Your task to perform on an android device: turn on javascript in the chrome app Image 0: 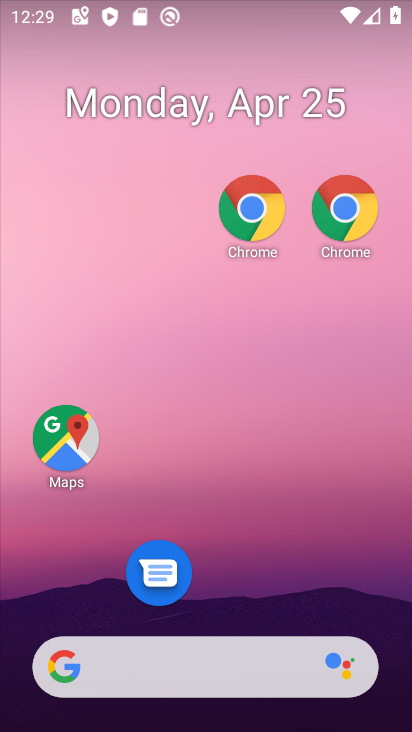
Step 0: drag from (205, 543) to (80, 34)
Your task to perform on an android device: turn on javascript in the chrome app Image 1: 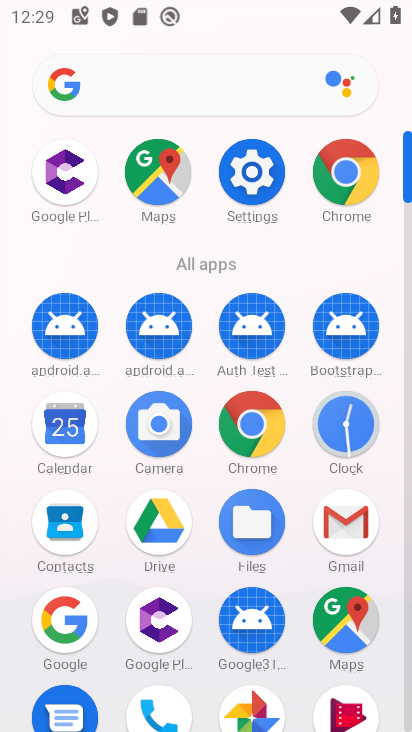
Step 1: click (337, 180)
Your task to perform on an android device: turn on javascript in the chrome app Image 2: 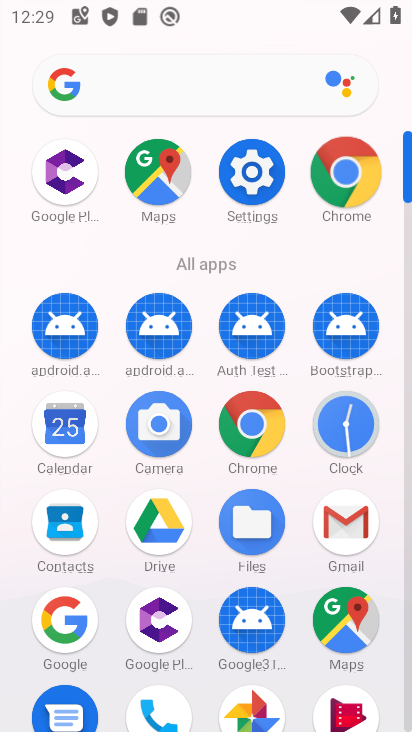
Step 2: click (344, 178)
Your task to perform on an android device: turn on javascript in the chrome app Image 3: 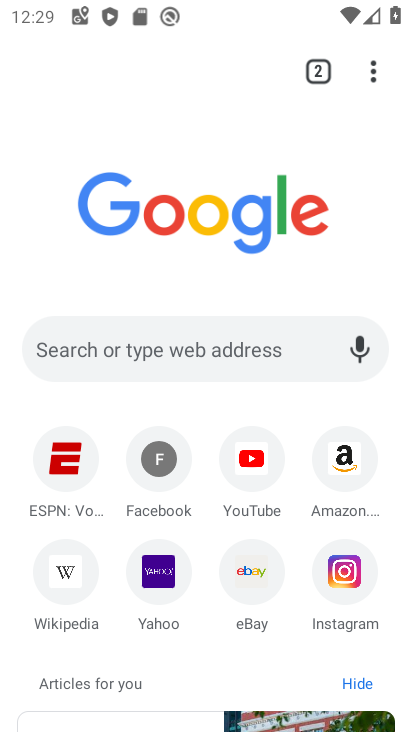
Step 3: drag from (374, 66) to (141, 606)
Your task to perform on an android device: turn on javascript in the chrome app Image 4: 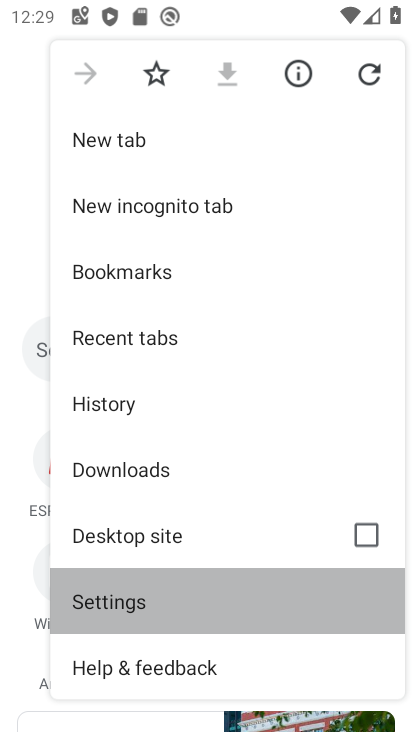
Step 4: click (140, 607)
Your task to perform on an android device: turn on javascript in the chrome app Image 5: 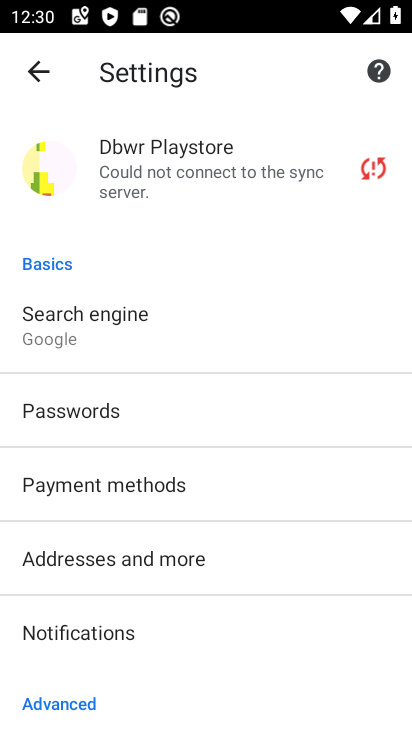
Step 5: drag from (102, 367) to (161, 53)
Your task to perform on an android device: turn on javascript in the chrome app Image 6: 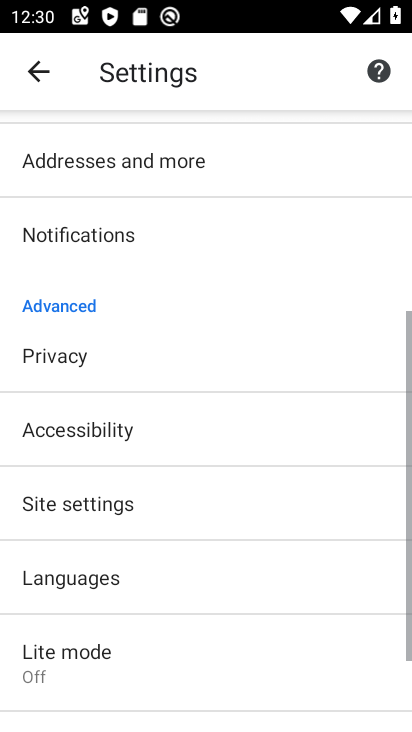
Step 6: drag from (118, 310) to (117, 46)
Your task to perform on an android device: turn on javascript in the chrome app Image 7: 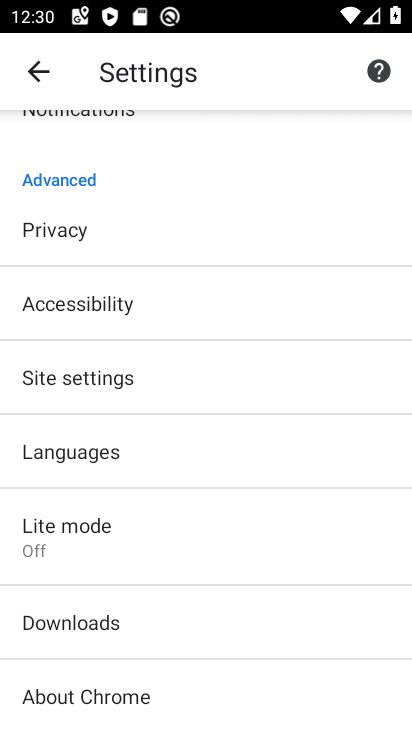
Step 7: click (58, 374)
Your task to perform on an android device: turn on javascript in the chrome app Image 8: 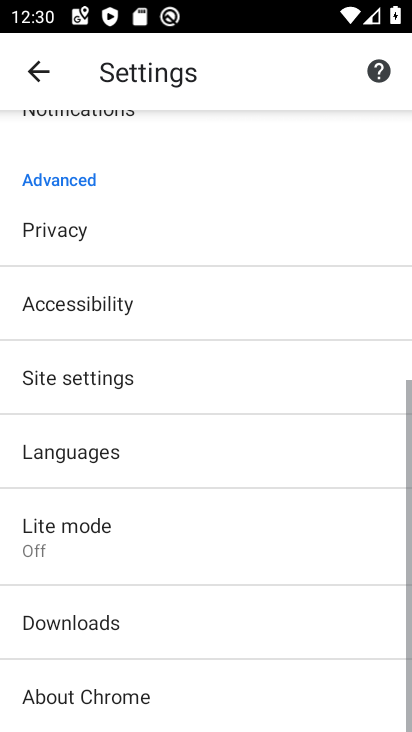
Step 8: click (59, 373)
Your task to perform on an android device: turn on javascript in the chrome app Image 9: 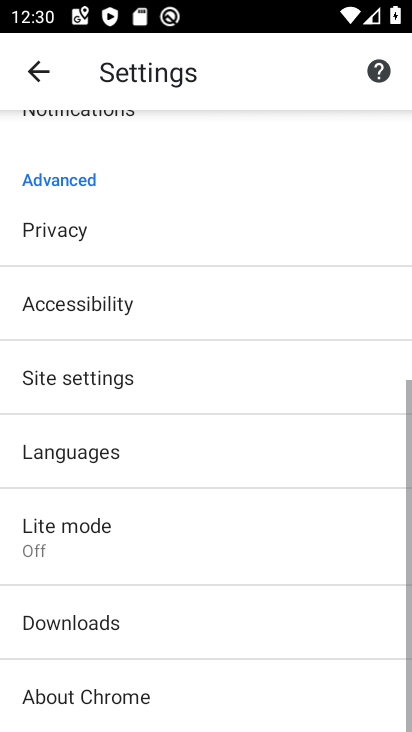
Step 9: click (52, 391)
Your task to perform on an android device: turn on javascript in the chrome app Image 10: 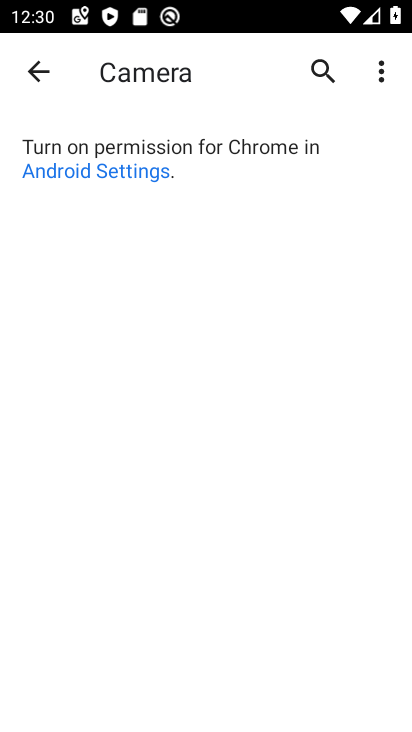
Step 10: click (32, 56)
Your task to perform on an android device: turn on javascript in the chrome app Image 11: 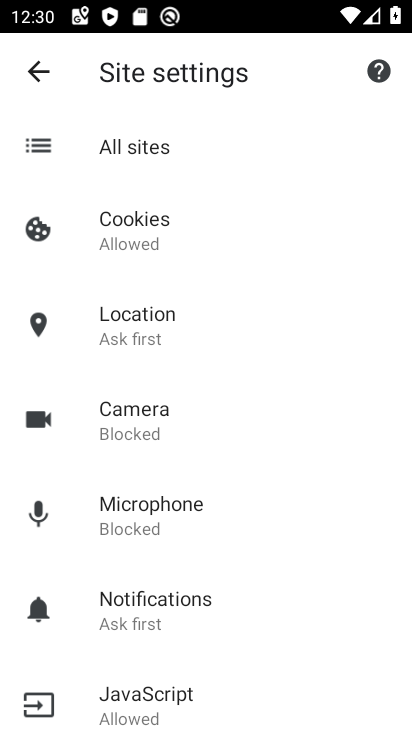
Step 11: drag from (194, 461) to (153, 262)
Your task to perform on an android device: turn on javascript in the chrome app Image 12: 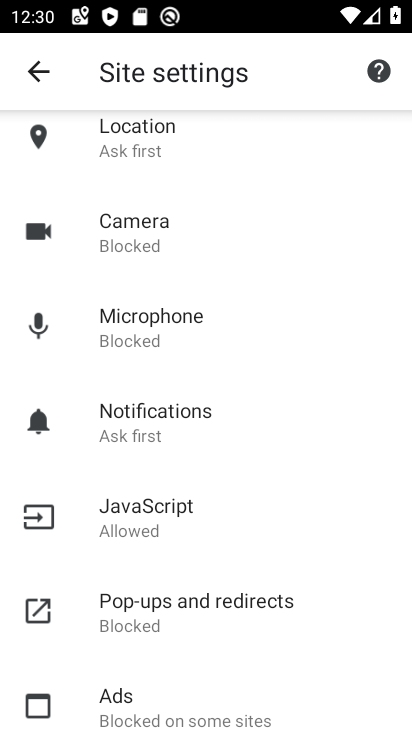
Step 12: click (139, 518)
Your task to perform on an android device: turn on javascript in the chrome app Image 13: 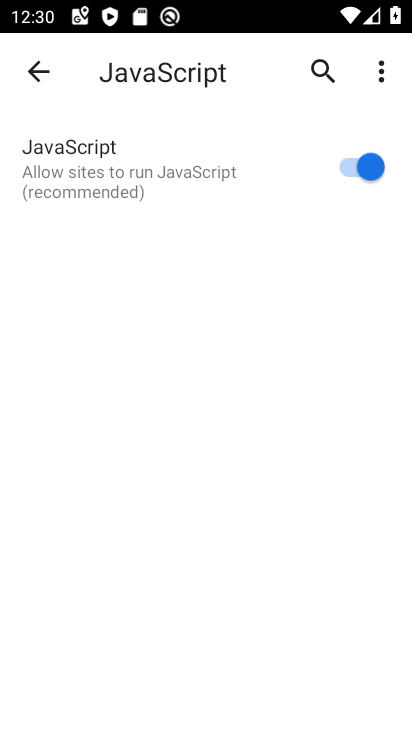
Step 13: task complete